Your task to perform on an android device: check out phone information Image 0: 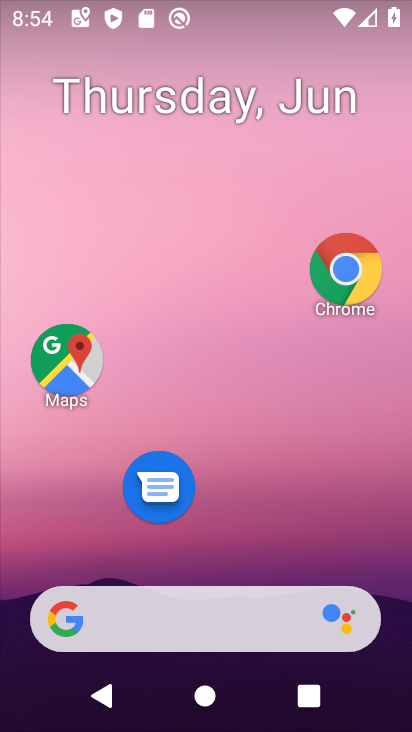
Step 0: drag from (255, 581) to (113, 8)
Your task to perform on an android device: check out phone information Image 1: 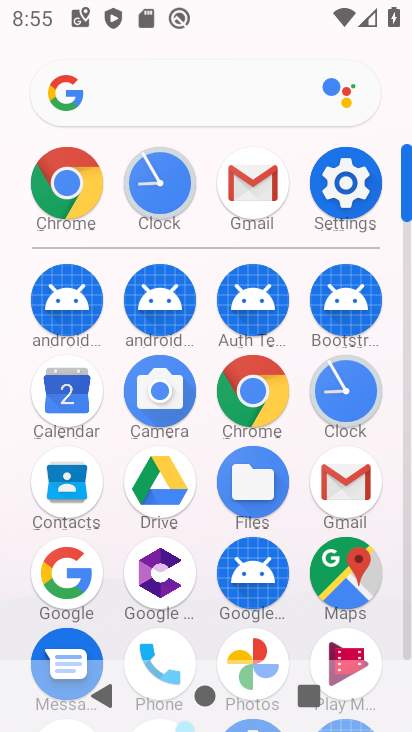
Step 1: click (331, 177)
Your task to perform on an android device: check out phone information Image 2: 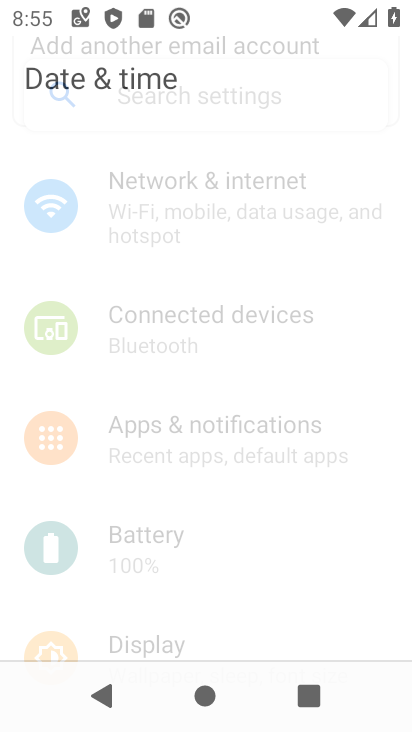
Step 2: drag from (147, 543) to (216, 40)
Your task to perform on an android device: check out phone information Image 3: 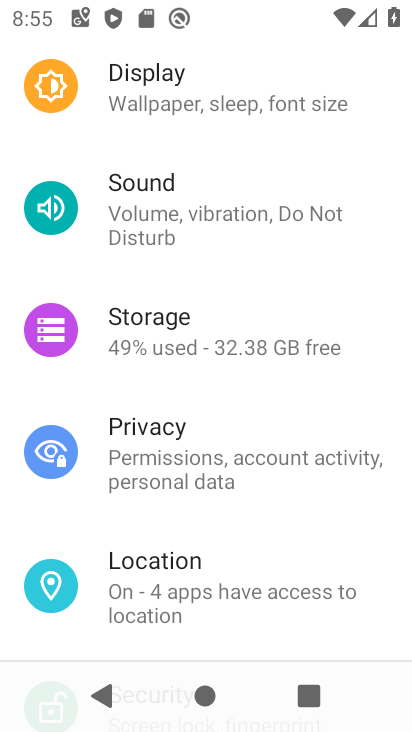
Step 3: drag from (194, 494) to (246, 153)
Your task to perform on an android device: check out phone information Image 4: 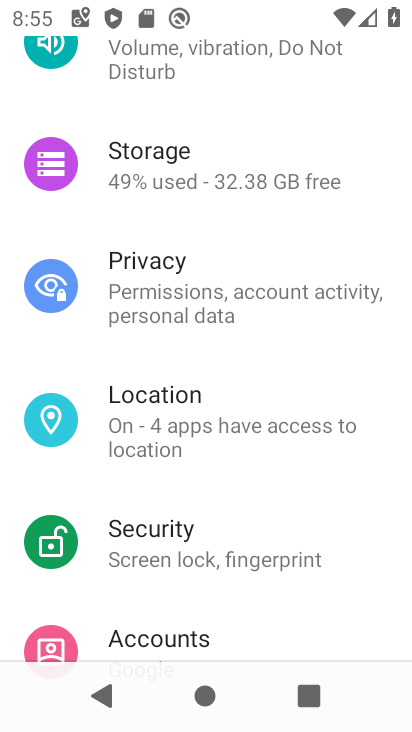
Step 4: drag from (215, 585) to (191, 73)
Your task to perform on an android device: check out phone information Image 5: 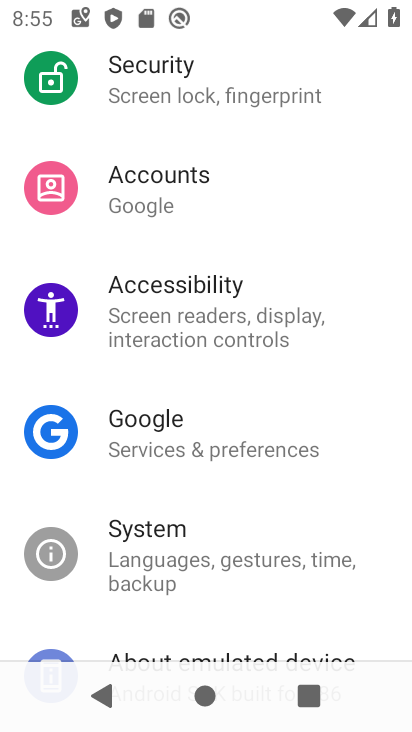
Step 5: drag from (199, 609) to (189, 87)
Your task to perform on an android device: check out phone information Image 6: 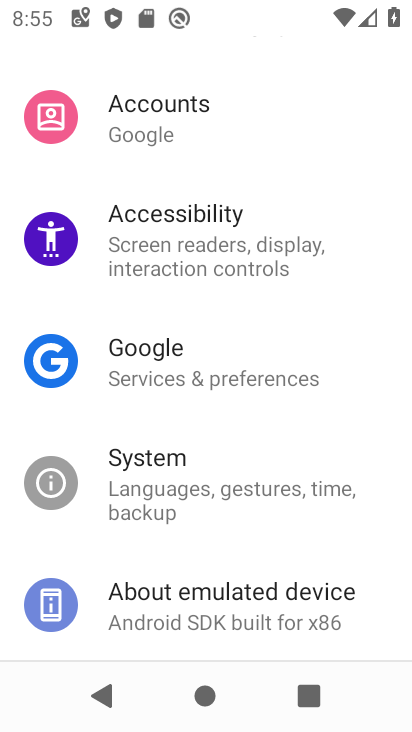
Step 6: click (199, 593)
Your task to perform on an android device: check out phone information Image 7: 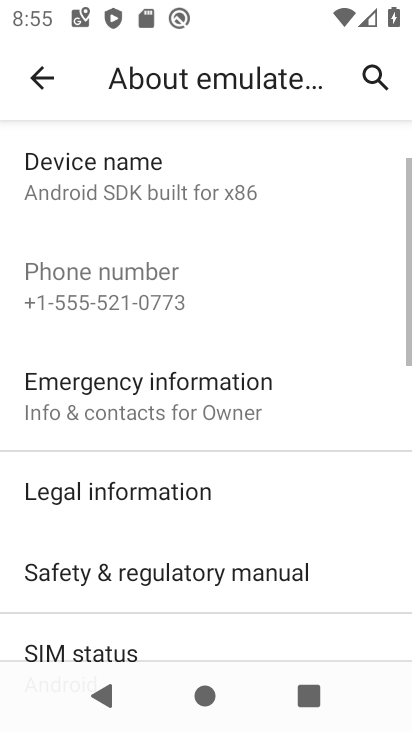
Step 7: task complete